Your task to perform on an android device: set an alarm Image 0: 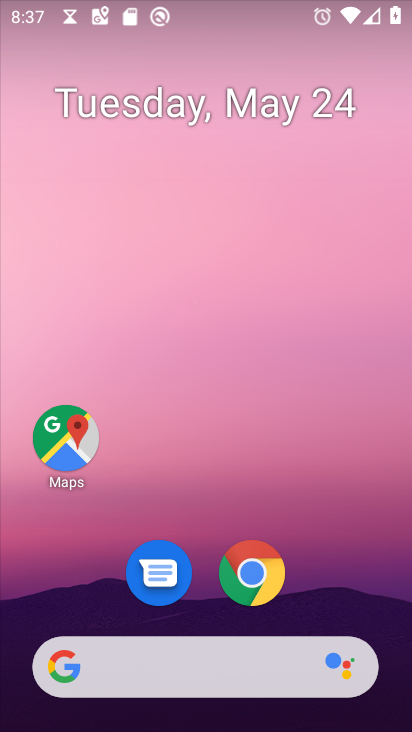
Step 0: drag from (368, 551) to (21, 453)
Your task to perform on an android device: set an alarm Image 1: 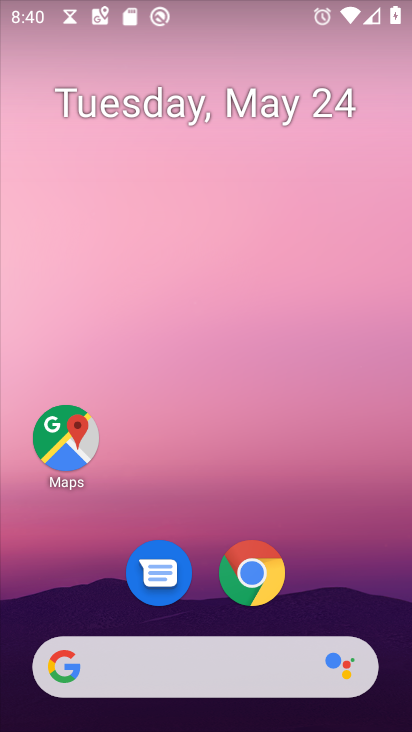
Step 1: drag from (383, 555) to (385, 22)
Your task to perform on an android device: set an alarm Image 2: 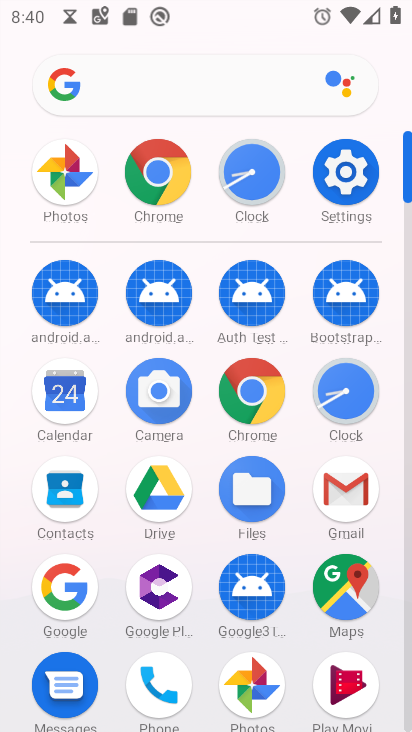
Step 2: click (270, 144)
Your task to perform on an android device: set an alarm Image 3: 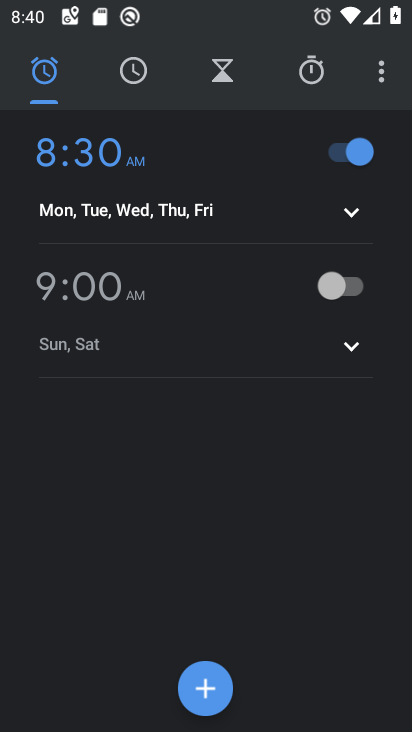
Step 3: click (235, 81)
Your task to perform on an android device: set an alarm Image 4: 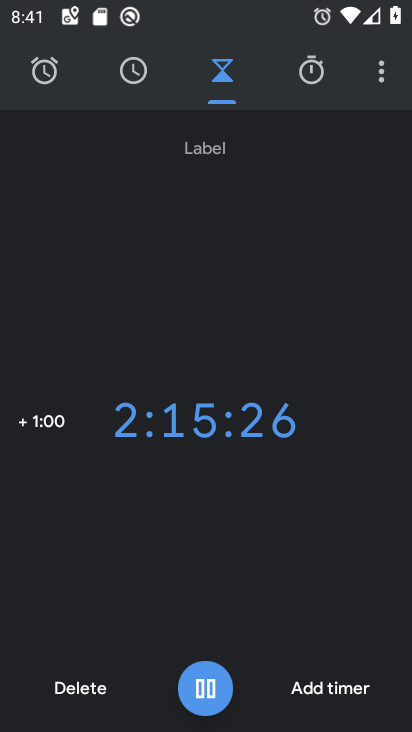
Step 4: task complete